Your task to perform on an android device: Open internet settings Image 0: 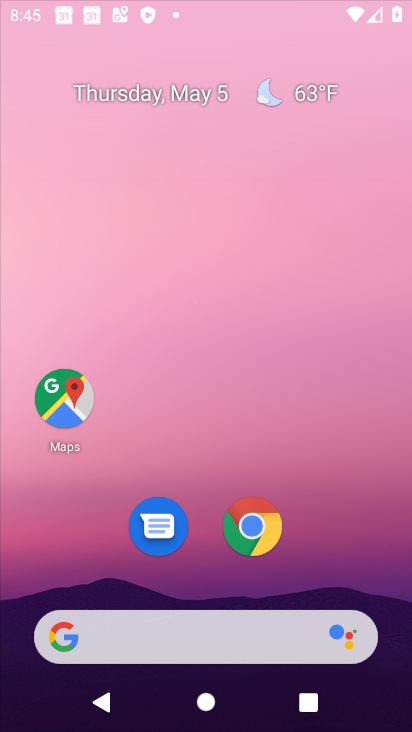
Step 0: click (320, 104)
Your task to perform on an android device: Open internet settings Image 1: 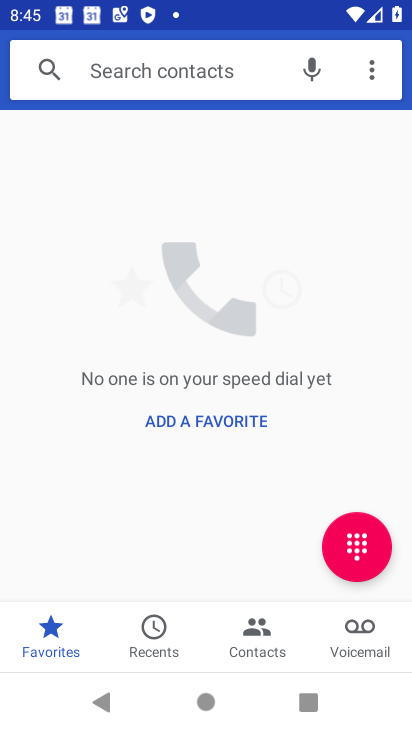
Step 1: press home button
Your task to perform on an android device: Open internet settings Image 2: 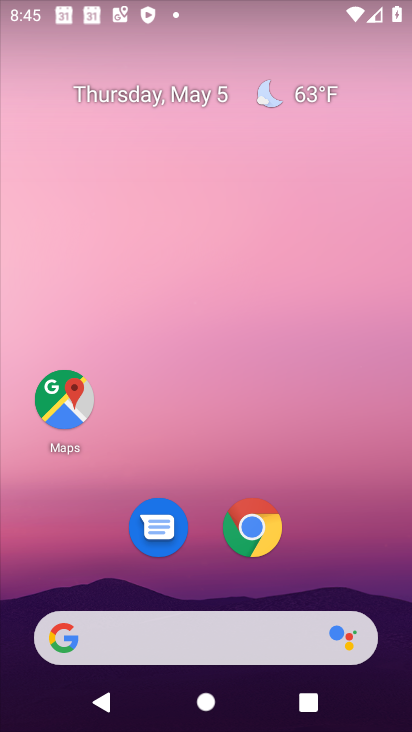
Step 2: drag from (164, 682) to (211, 15)
Your task to perform on an android device: Open internet settings Image 3: 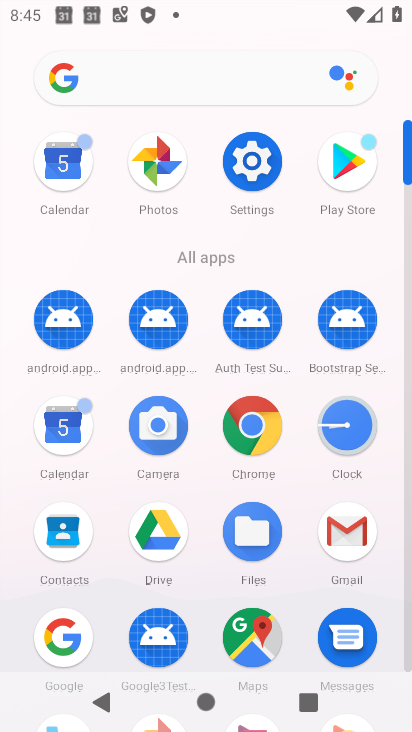
Step 3: drag from (281, 614) to (246, 43)
Your task to perform on an android device: Open internet settings Image 4: 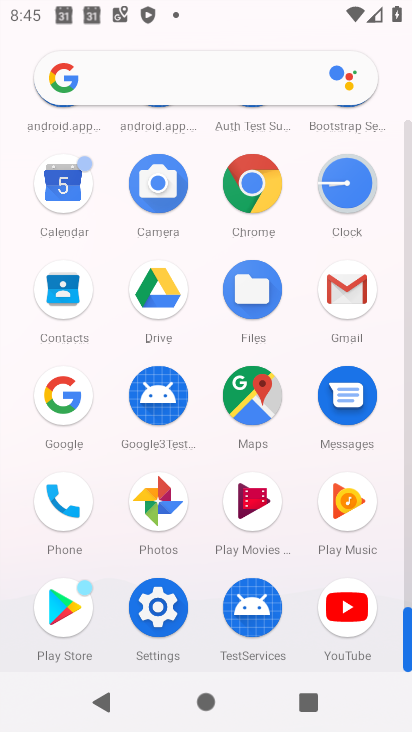
Step 4: click (352, 613)
Your task to perform on an android device: Open internet settings Image 5: 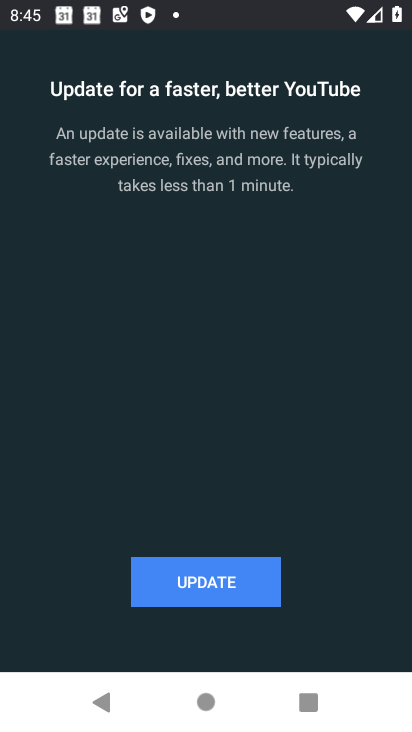
Step 5: press home button
Your task to perform on an android device: Open internet settings Image 6: 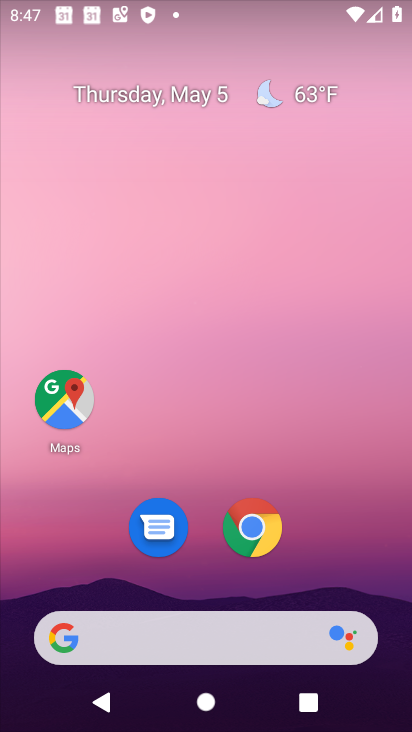
Step 6: drag from (250, 704) to (278, 0)
Your task to perform on an android device: Open internet settings Image 7: 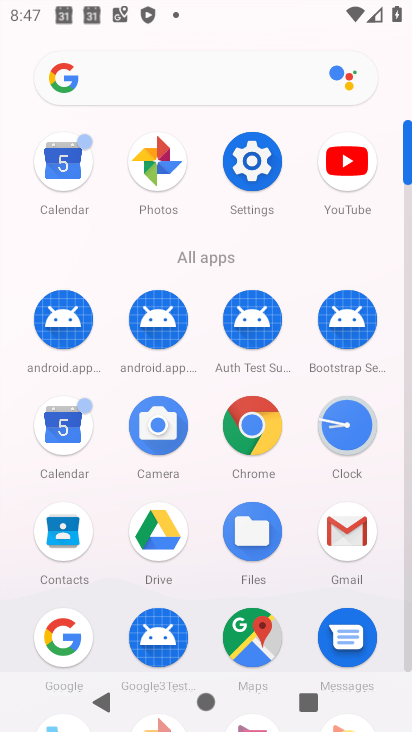
Step 7: click (251, 177)
Your task to perform on an android device: Open internet settings Image 8: 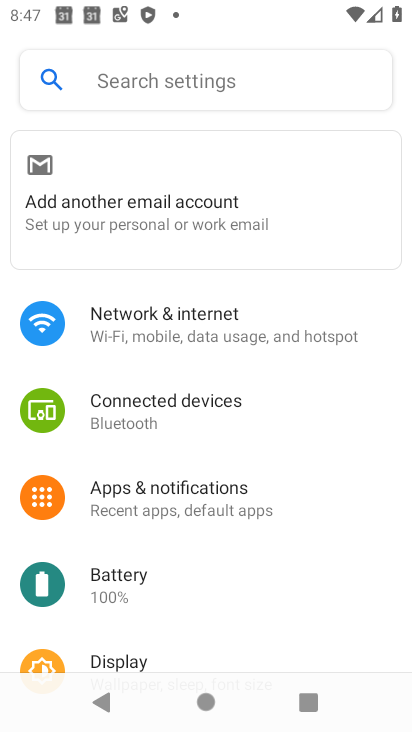
Step 8: click (249, 337)
Your task to perform on an android device: Open internet settings Image 9: 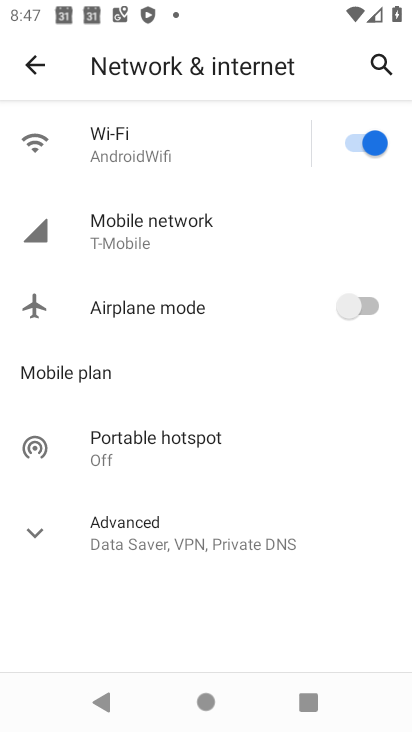
Step 9: task complete